Your task to perform on an android device: toggle location history Image 0: 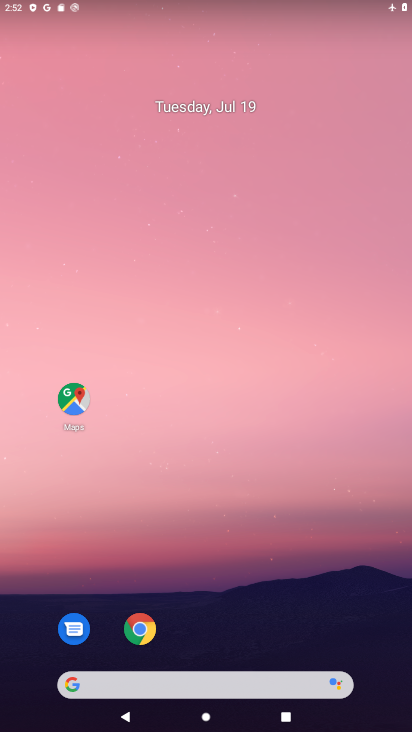
Step 0: click (76, 401)
Your task to perform on an android device: toggle location history Image 1: 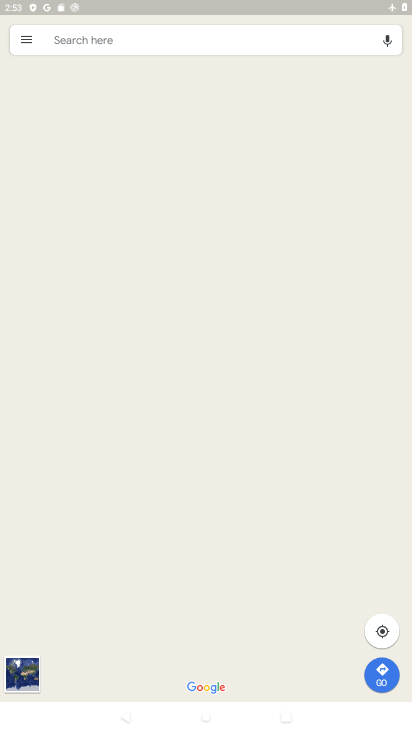
Step 1: click (21, 35)
Your task to perform on an android device: toggle location history Image 2: 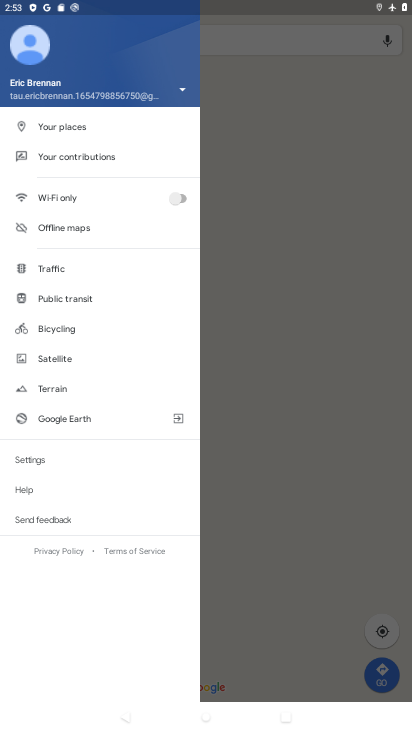
Step 2: task complete